Your task to perform on an android device: Open calendar and show me the first week of next month Image 0: 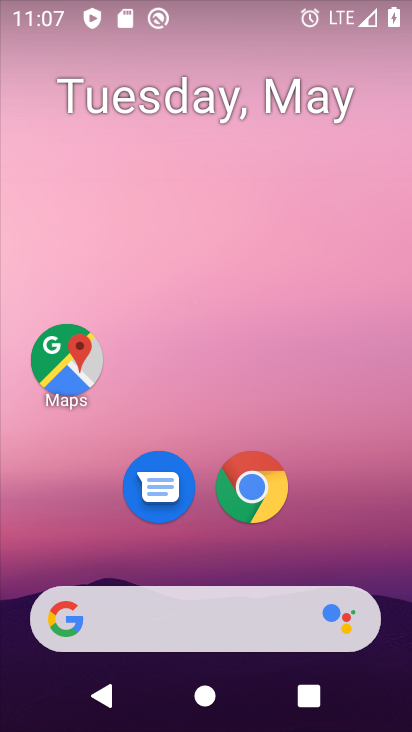
Step 0: click (332, 450)
Your task to perform on an android device: Open calendar and show me the first week of next month Image 1: 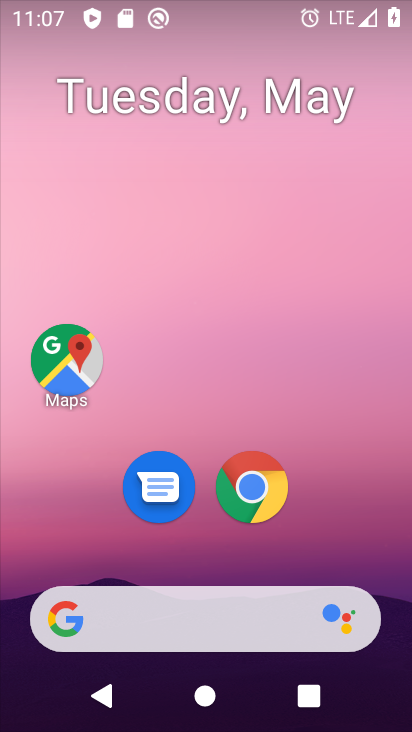
Step 1: drag from (210, 570) to (196, 80)
Your task to perform on an android device: Open calendar and show me the first week of next month Image 2: 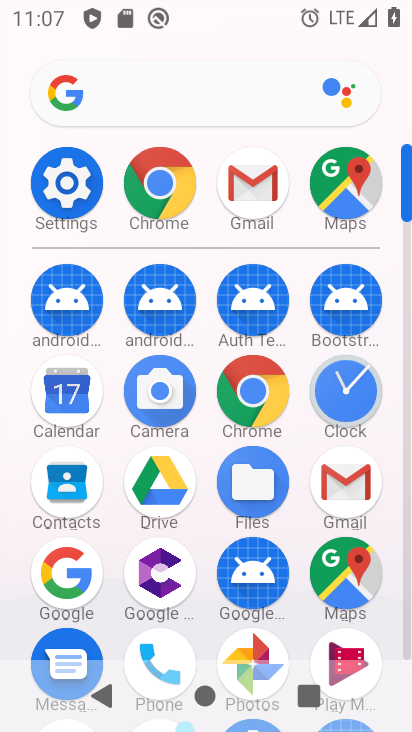
Step 2: click (64, 385)
Your task to perform on an android device: Open calendar and show me the first week of next month Image 3: 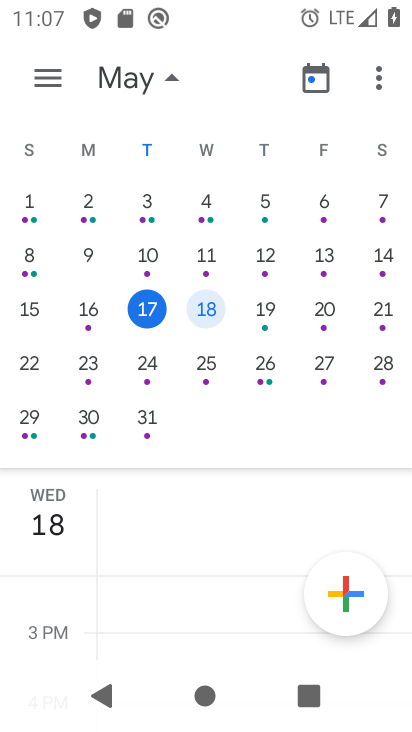
Step 3: drag from (342, 319) to (16, 299)
Your task to perform on an android device: Open calendar and show me the first week of next month Image 4: 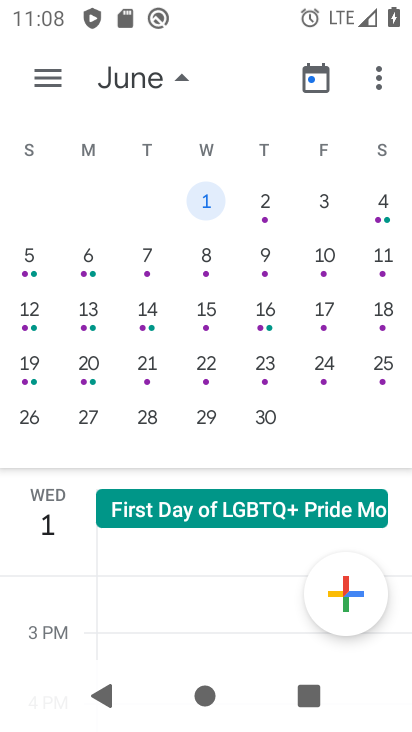
Step 4: click (320, 195)
Your task to perform on an android device: Open calendar and show me the first week of next month Image 5: 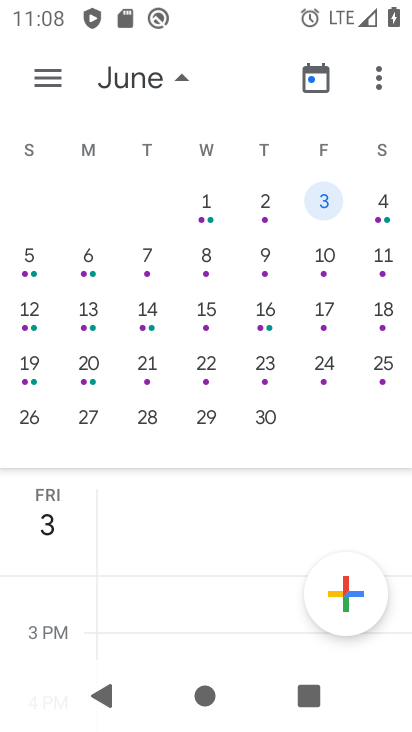
Step 5: click (256, 195)
Your task to perform on an android device: Open calendar and show me the first week of next month Image 6: 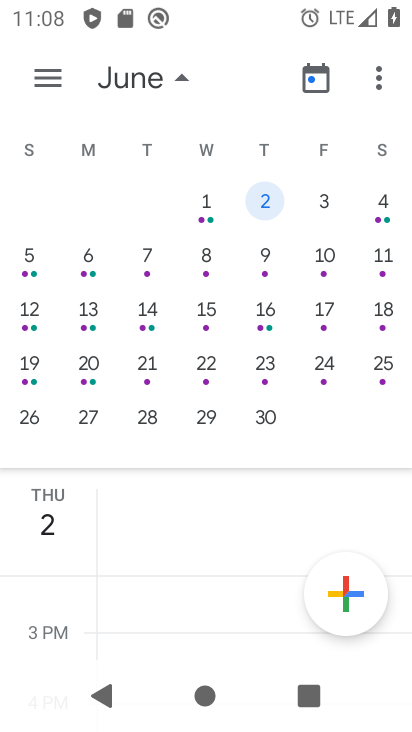
Step 6: task complete